Your task to perform on an android device: Go to accessibility settings Image 0: 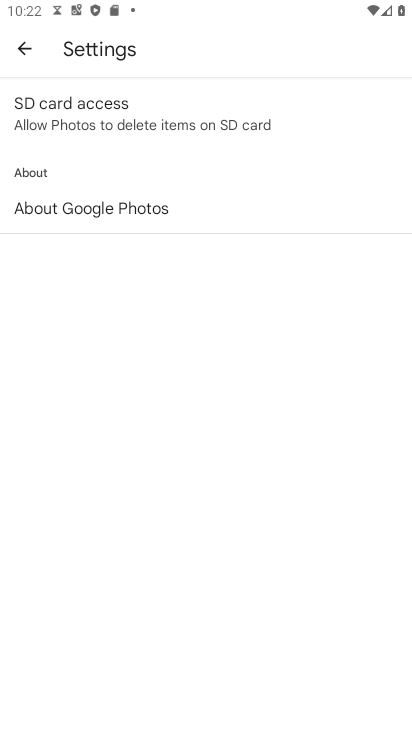
Step 0: press home button
Your task to perform on an android device: Go to accessibility settings Image 1: 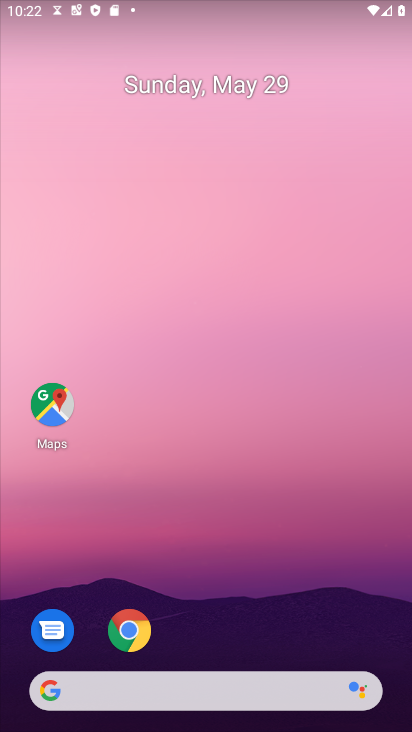
Step 1: drag from (284, 603) to (352, 5)
Your task to perform on an android device: Go to accessibility settings Image 2: 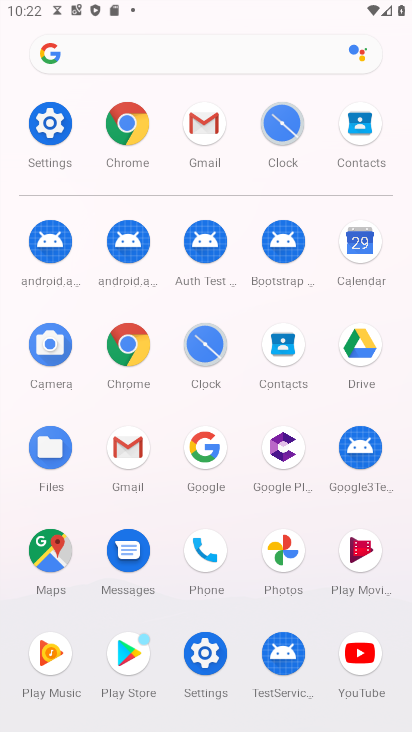
Step 2: click (201, 643)
Your task to perform on an android device: Go to accessibility settings Image 3: 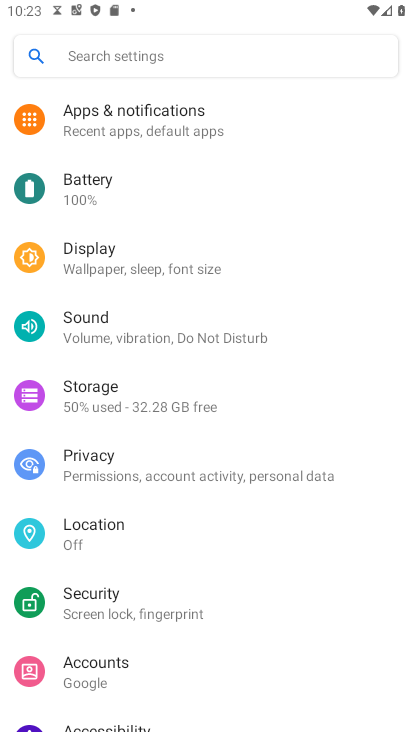
Step 3: drag from (232, 632) to (329, 93)
Your task to perform on an android device: Go to accessibility settings Image 4: 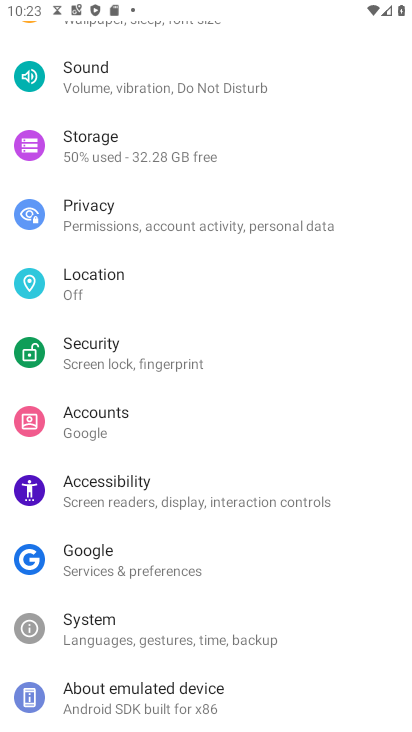
Step 4: click (211, 476)
Your task to perform on an android device: Go to accessibility settings Image 5: 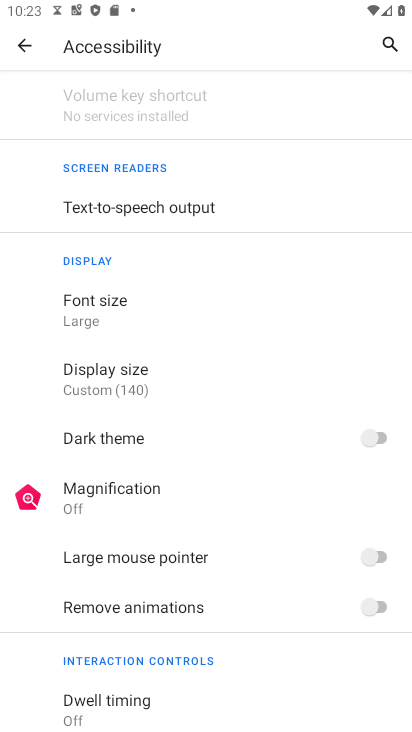
Step 5: task complete